Your task to perform on an android device: turn on bluetooth scan Image 0: 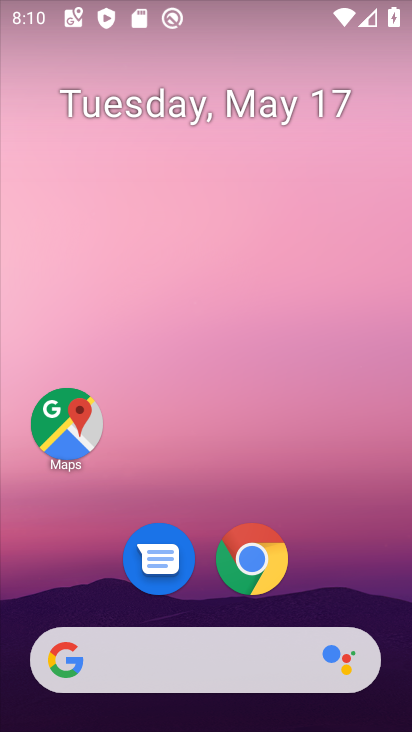
Step 0: drag from (195, 553) to (227, 43)
Your task to perform on an android device: turn on bluetooth scan Image 1: 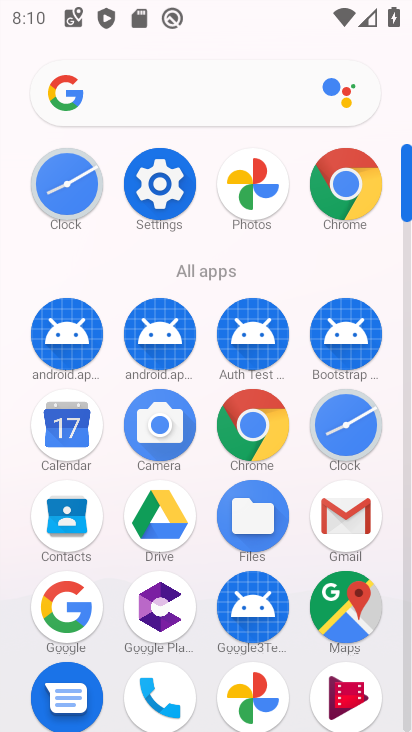
Step 1: click (183, 199)
Your task to perform on an android device: turn on bluetooth scan Image 2: 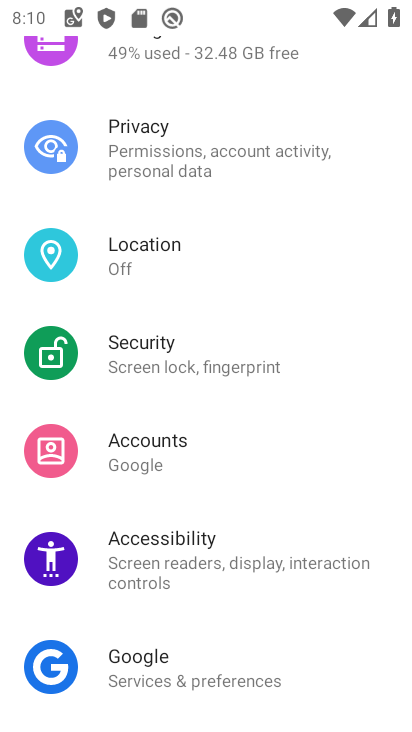
Step 2: click (145, 243)
Your task to perform on an android device: turn on bluetooth scan Image 3: 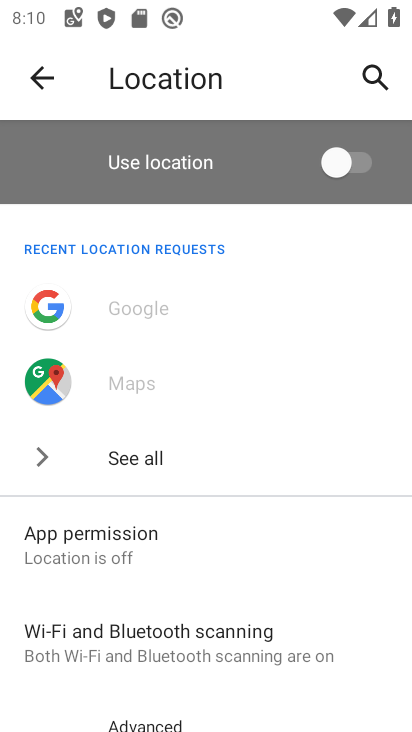
Step 3: click (196, 652)
Your task to perform on an android device: turn on bluetooth scan Image 4: 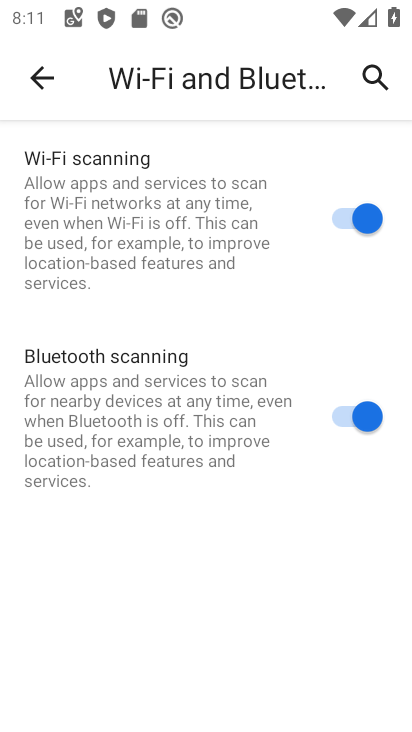
Step 4: task complete